Your task to perform on an android device: Go to wifi settings Image 0: 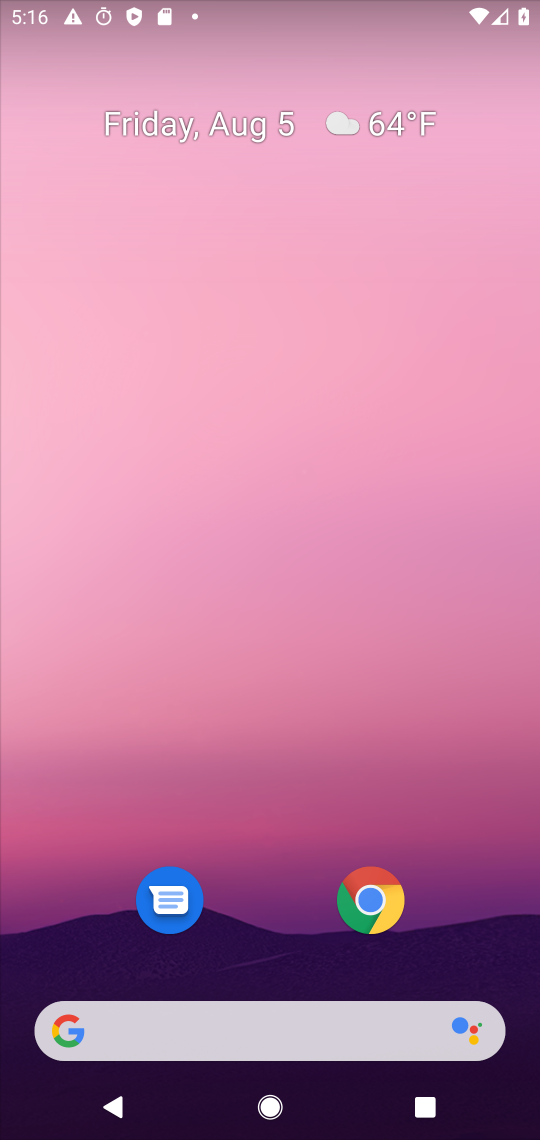
Step 0: drag from (249, 1033) to (326, 52)
Your task to perform on an android device: Go to wifi settings Image 1: 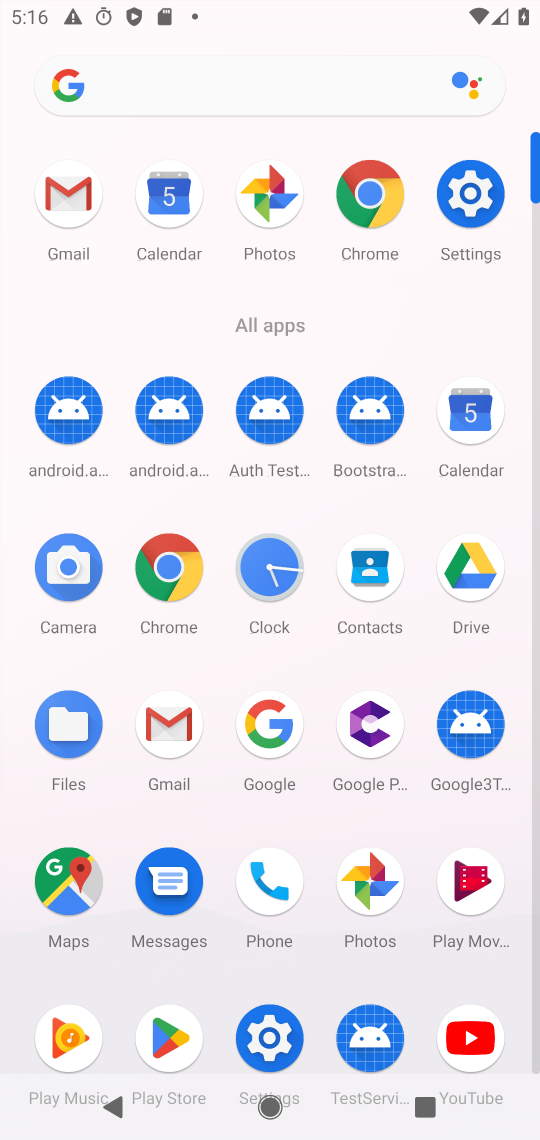
Step 1: click (476, 228)
Your task to perform on an android device: Go to wifi settings Image 2: 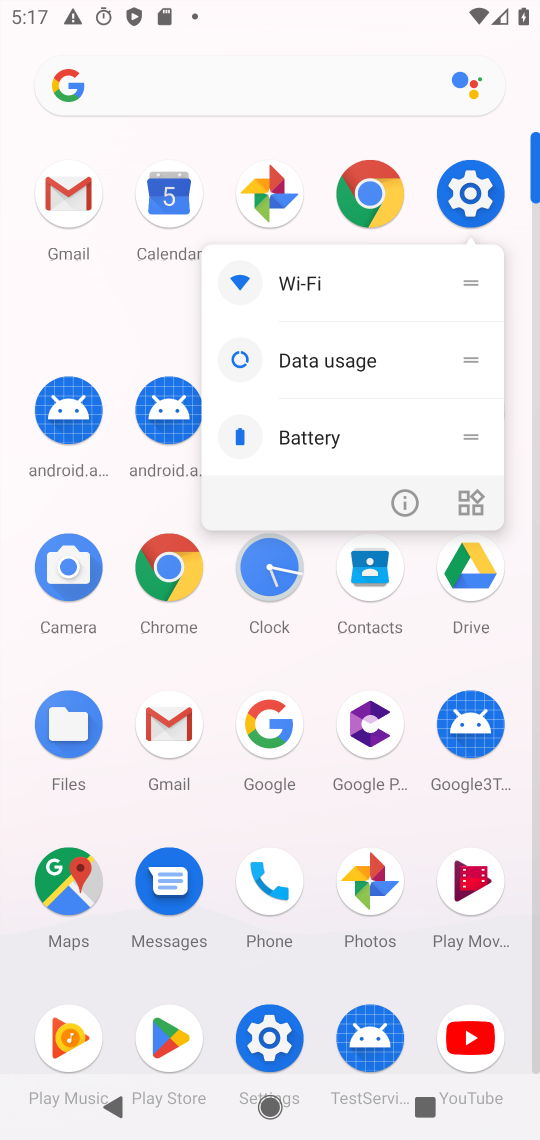
Step 2: click (475, 185)
Your task to perform on an android device: Go to wifi settings Image 3: 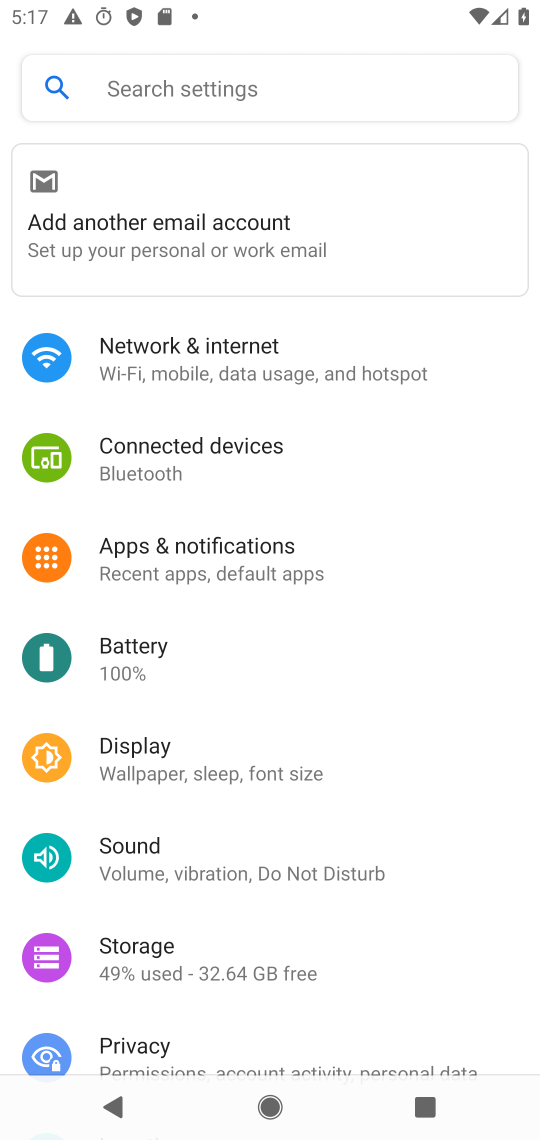
Step 3: click (141, 350)
Your task to perform on an android device: Go to wifi settings Image 4: 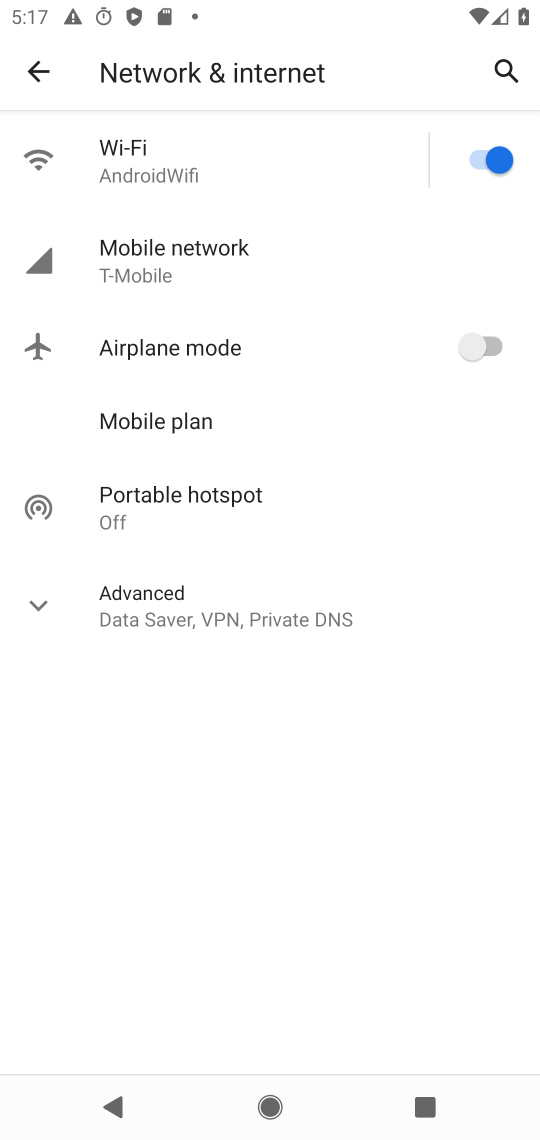
Step 4: click (157, 149)
Your task to perform on an android device: Go to wifi settings Image 5: 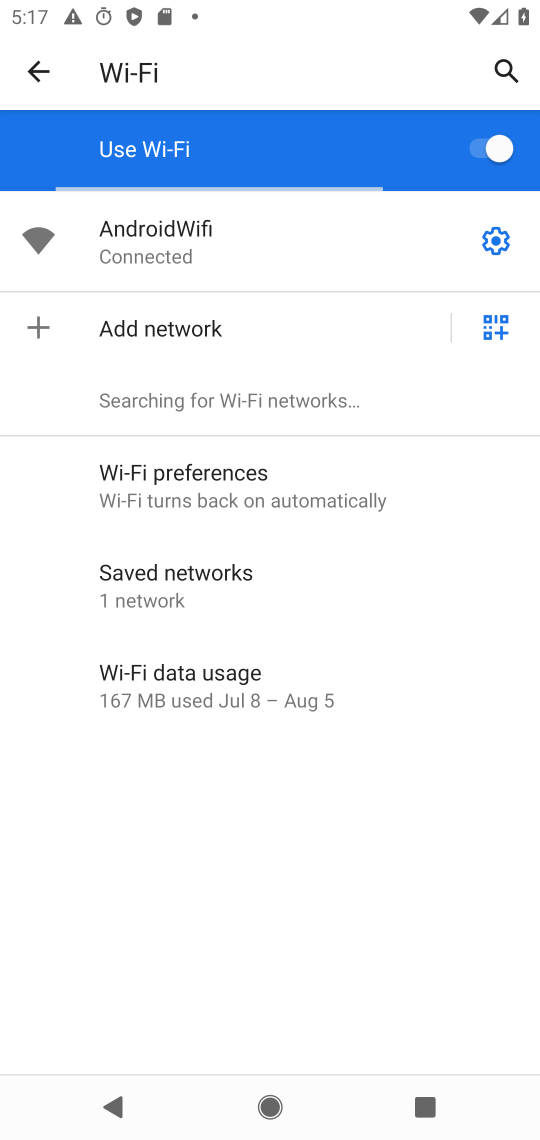
Step 5: task complete